Your task to perform on an android device: open the mobile data screen to see how much data has been used Image 0: 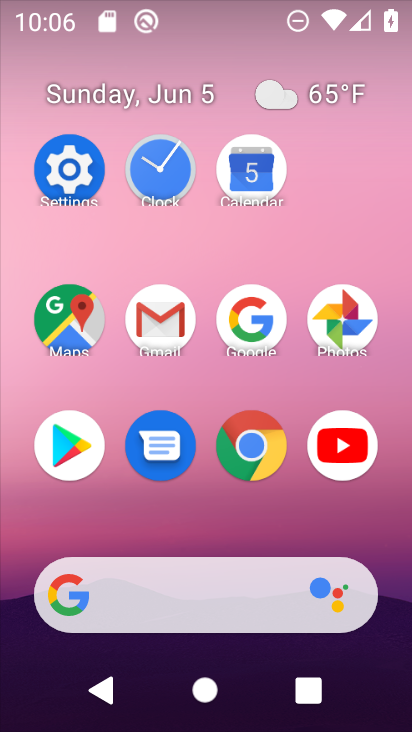
Step 0: click (45, 173)
Your task to perform on an android device: open the mobile data screen to see how much data has been used Image 1: 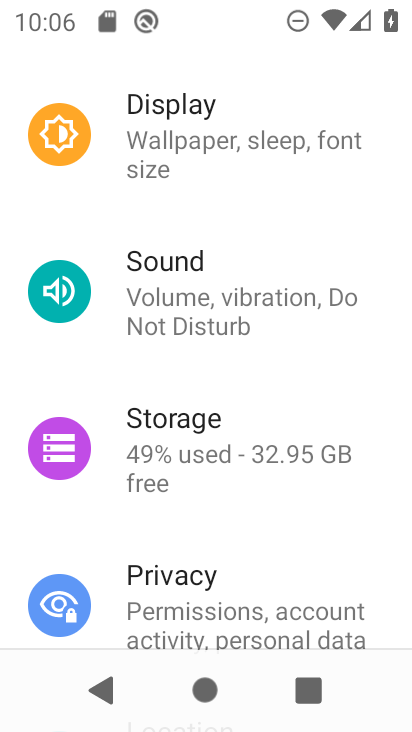
Step 1: drag from (333, 172) to (276, 486)
Your task to perform on an android device: open the mobile data screen to see how much data has been used Image 2: 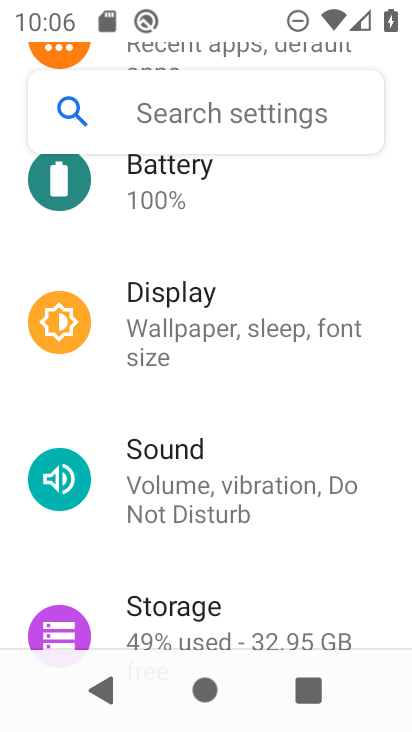
Step 2: drag from (338, 241) to (275, 652)
Your task to perform on an android device: open the mobile data screen to see how much data has been used Image 3: 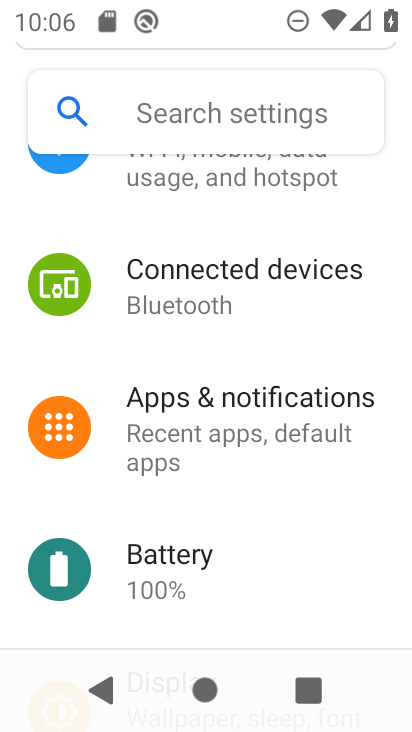
Step 3: click (261, 149)
Your task to perform on an android device: open the mobile data screen to see how much data has been used Image 4: 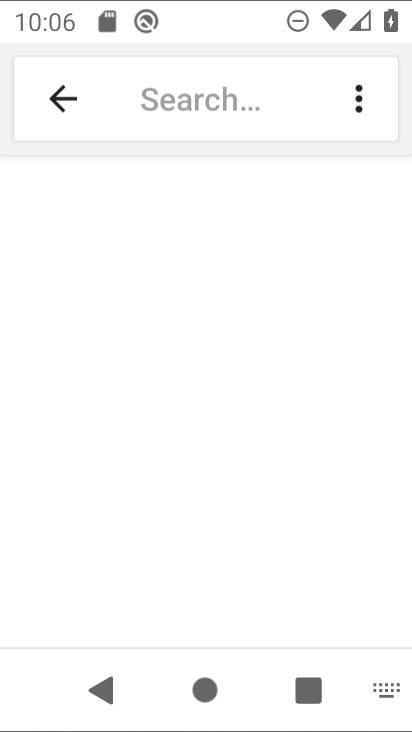
Step 4: click (276, 207)
Your task to perform on an android device: open the mobile data screen to see how much data has been used Image 5: 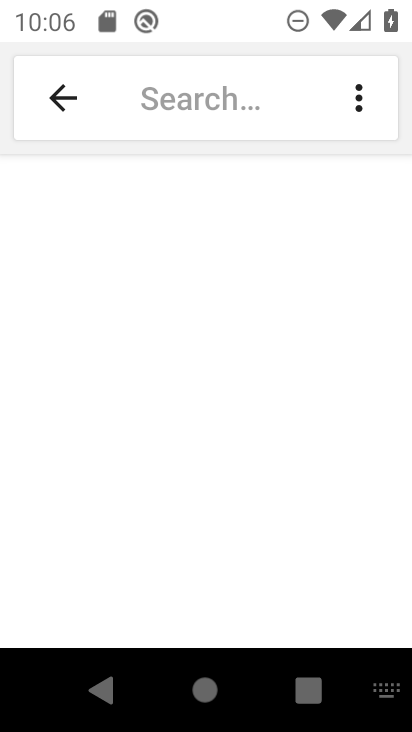
Step 5: click (60, 103)
Your task to perform on an android device: open the mobile data screen to see how much data has been used Image 6: 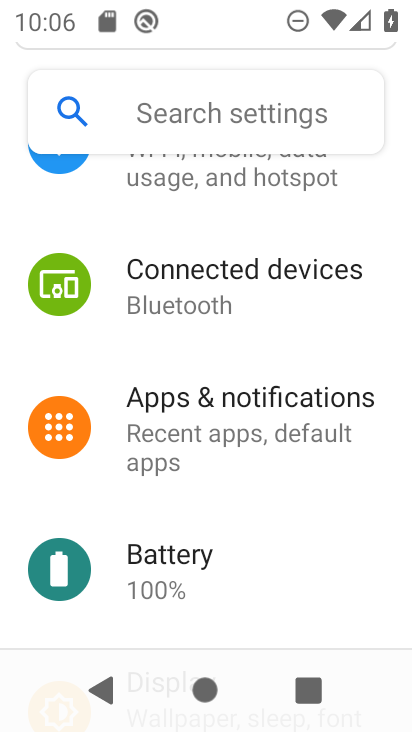
Step 6: click (301, 170)
Your task to perform on an android device: open the mobile data screen to see how much data has been used Image 7: 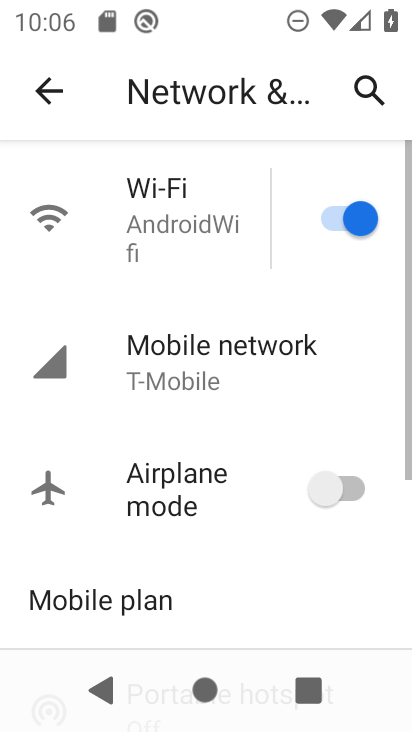
Step 7: click (224, 368)
Your task to perform on an android device: open the mobile data screen to see how much data has been used Image 8: 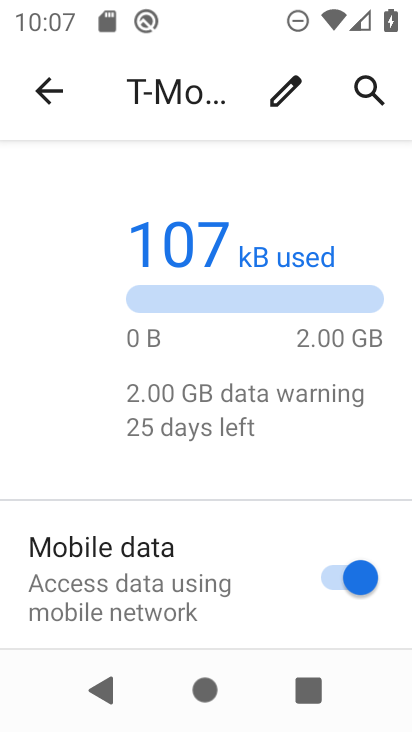
Step 8: task complete